Your task to perform on an android device: turn on translation in the chrome app Image 0: 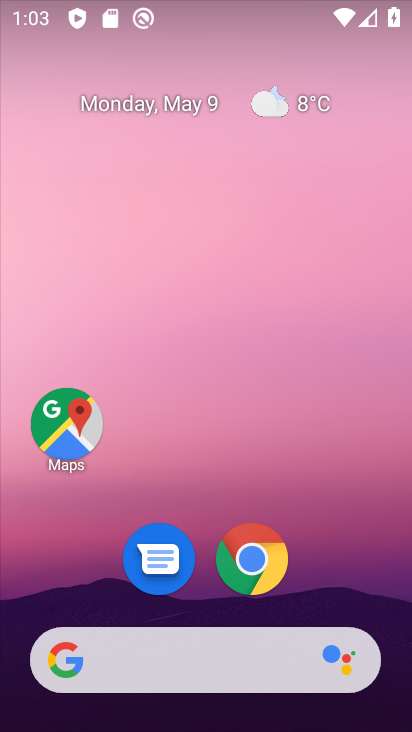
Step 0: click (273, 557)
Your task to perform on an android device: turn on translation in the chrome app Image 1: 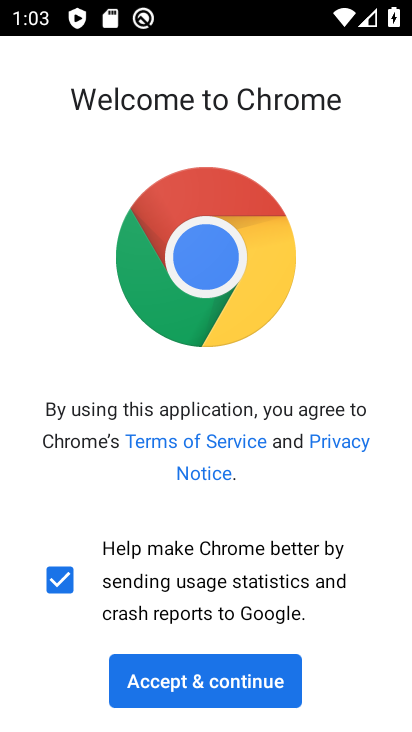
Step 1: click (225, 668)
Your task to perform on an android device: turn on translation in the chrome app Image 2: 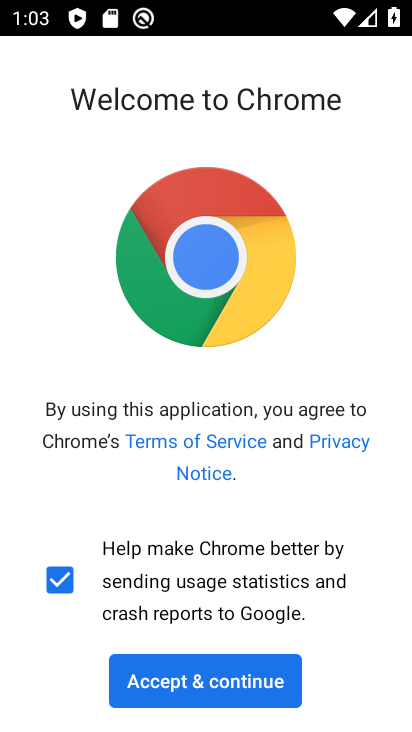
Step 2: click (225, 668)
Your task to perform on an android device: turn on translation in the chrome app Image 3: 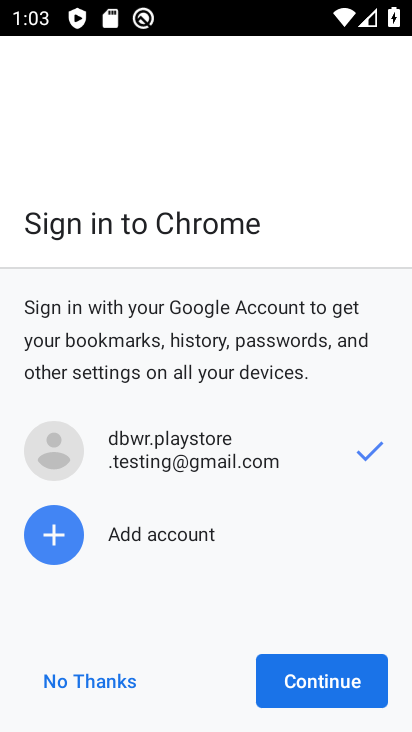
Step 3: click (299, 677)
Your task to perform on an android device: turn on translation in the chrome app Image 4: 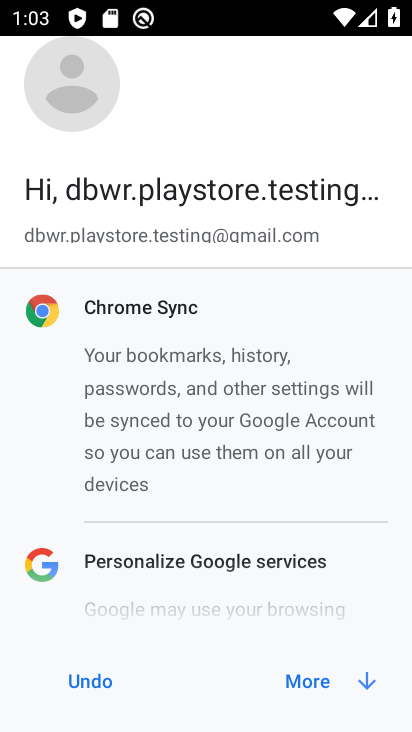
Step 4: click (361, 674)
Your task to perform on an android device: turn on translation in the chrome app Image 5: 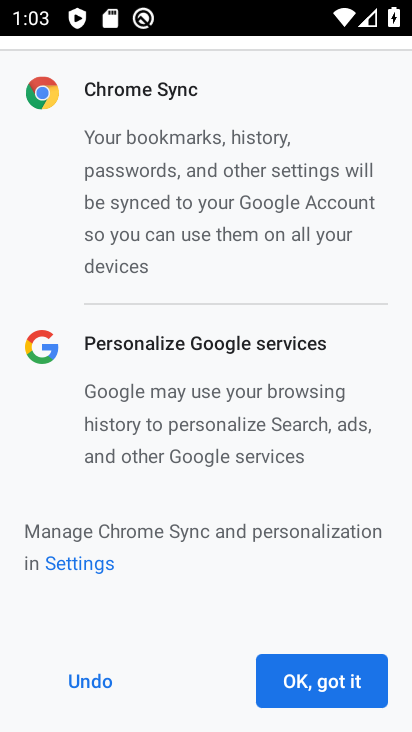
Step 5: click (341, 682)
Your task to perform on an android device: turn on translation in the chrome app Image 6: 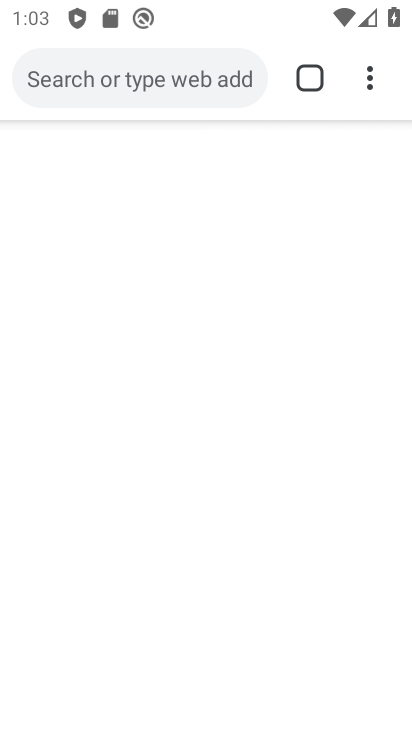
Step 6: click (368, 80)
Your task to perform on an android device: turn on translation in the chrome app Image 7: 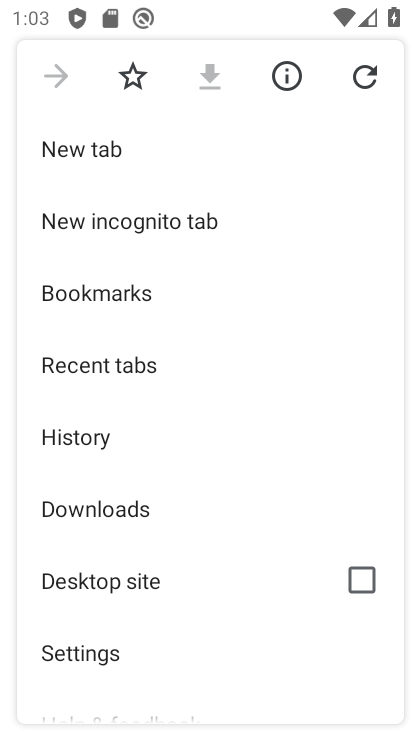
Step 7: drag from (225, 530) to (154, 239)
Your task to perform on an android device: turn on translation in the chrome app Image 8: 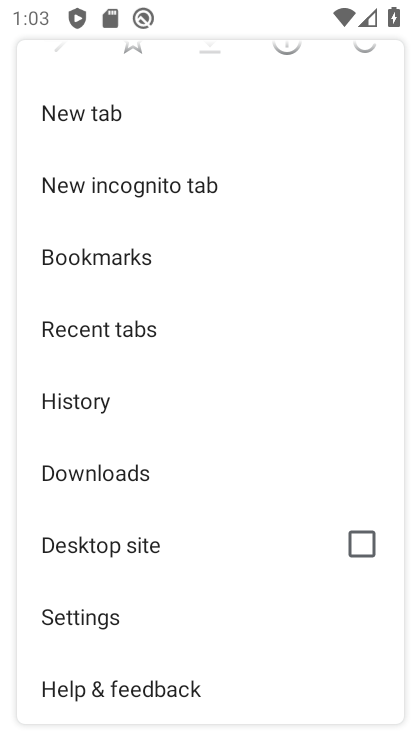
Step 8: click (113, 615)
Your task to perform on an android device: turn on translation in the chrome app Image 9: 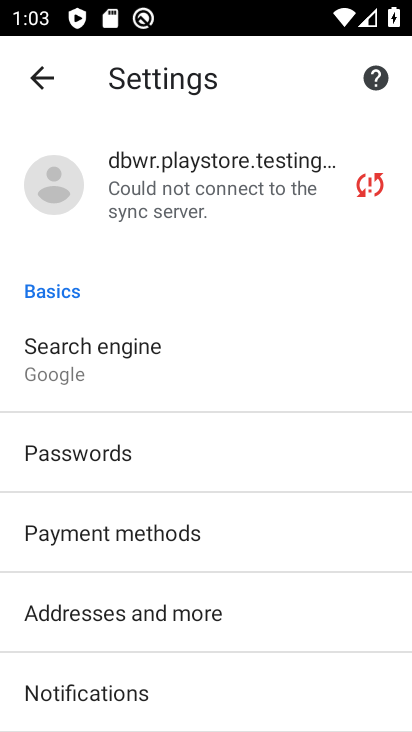
Step 9: drag from (267, 525) to (161, 175)
Your task to perform on an android device: turn on translation in the chrome app Image 10: 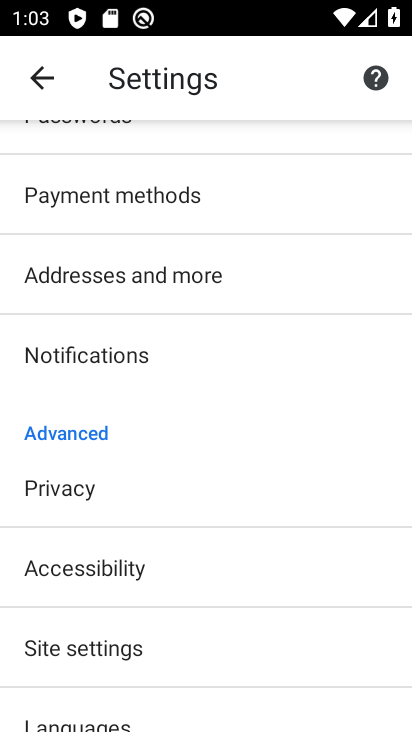
Step 10: click (84, 715)
Your task to perform on an android device: turn on translation in the chrome app Image 11: 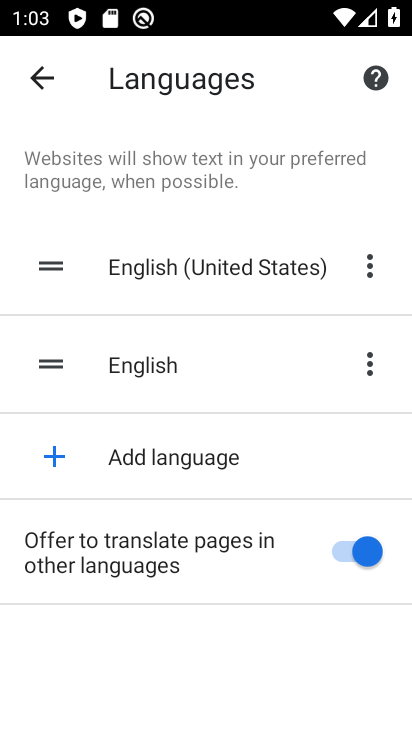
Step 11: task complete